Your task to perform on an android device: check out phone information Image 0: 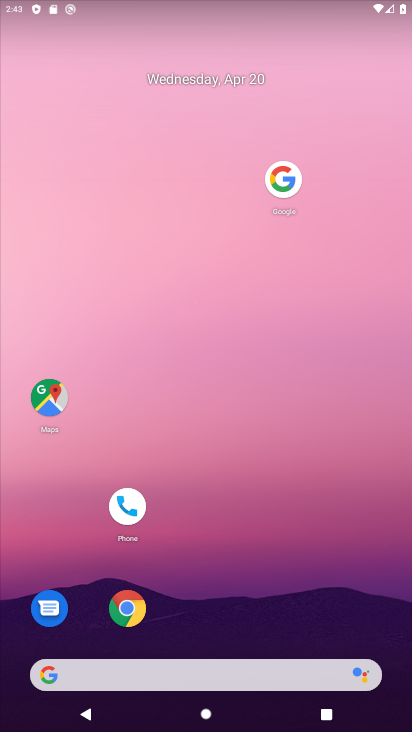
Step 0: drag from (338, 613) to (266, 593)
Your task to perform on an android device: check out phone information Image 1: 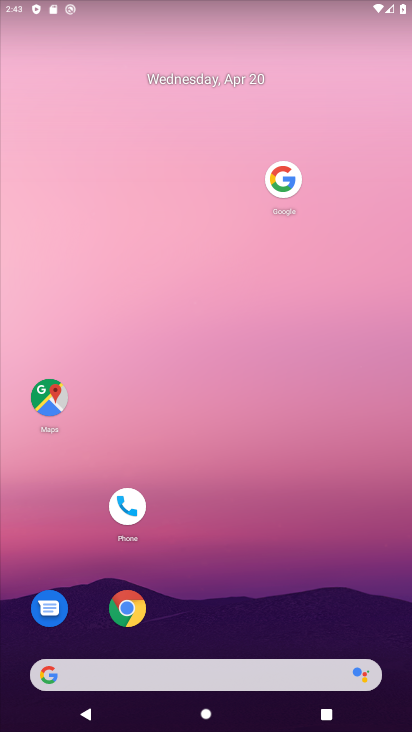
Step 1: click (126, 506)
Your task to perform on an android device: check out phone information Image 2: 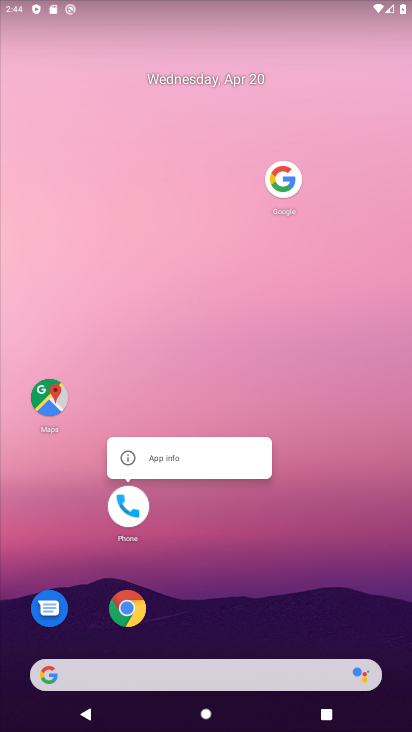
Step 2: click (178, 454)
Your task to perform on an android device: check out phone information Image 3: 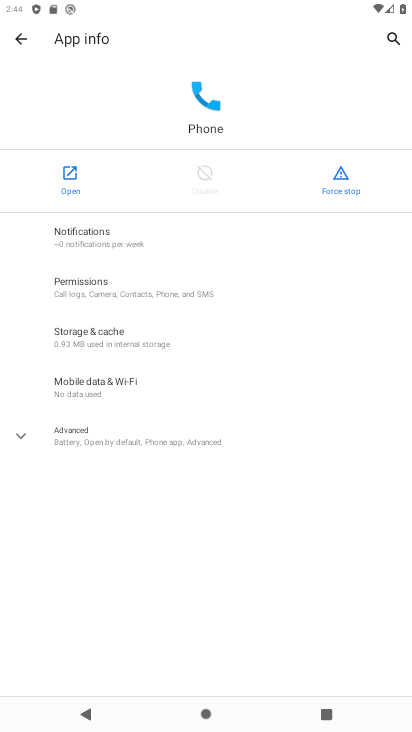
Step 3: task complete